Your task to perform on an android device: Search for pizza restaurants on Maps Image 0: 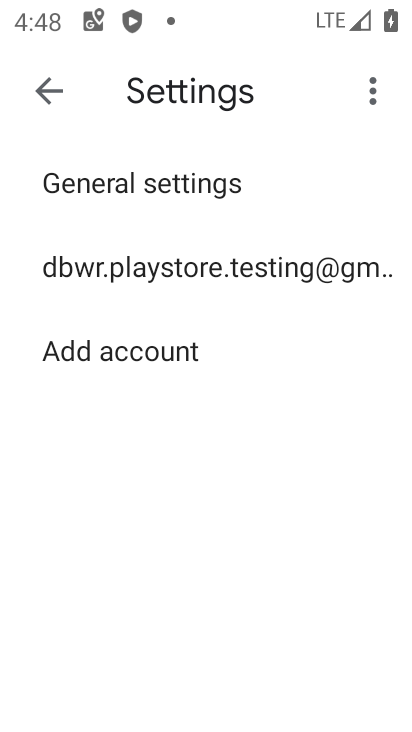
Step 0: press back button
Your task to perform on an android device: Search for pizza restaurants on Maps Image 1: 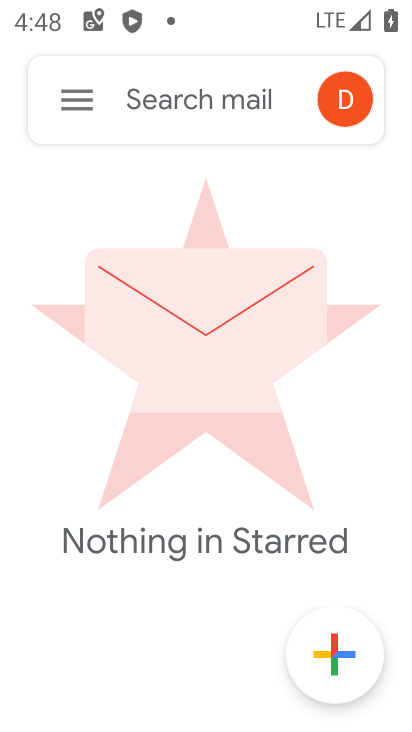
Step 1: press back button
Your task to perform on an android device: Search for pizza restaurants on Maps Image 2: 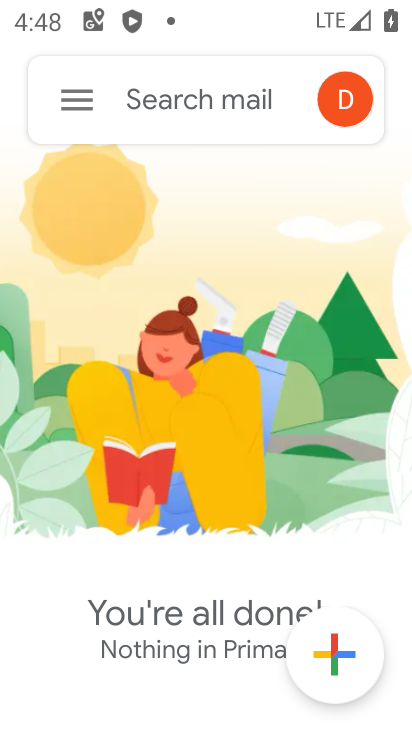
Step 2: press home button
Your task to perform on an android device: Search for pizza restaurants on Maps Image 3: 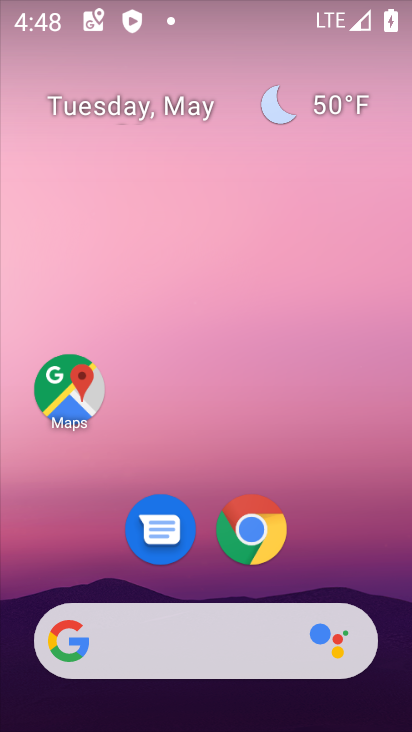
Step 3: drag from (341, 541) to (242, 1)
Your task to perform on an android device: Search for pizza restaurants on Maps Image 4: 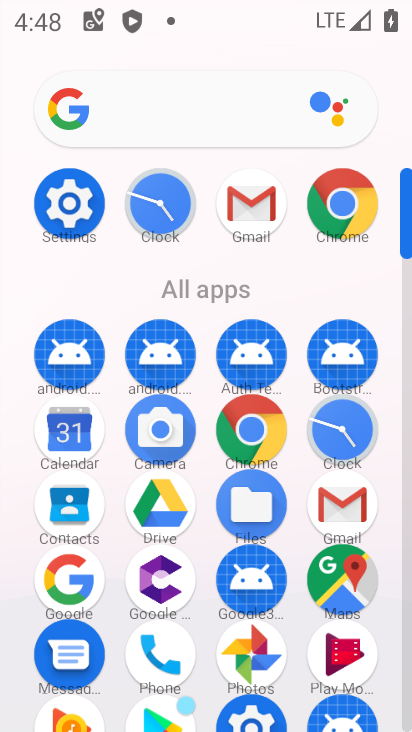
Step 4: click (338, 575)
Your task to perform on an android device: Search for pizza restaurants on Maps Image 5: 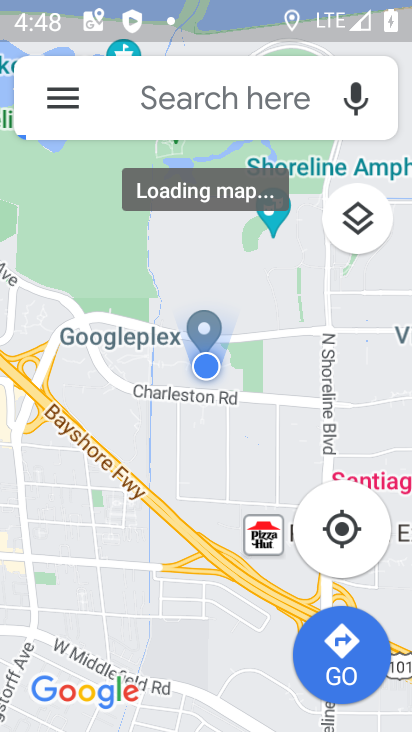
Step 5: click (140, 93)
Your task to perform on an android device: Search for pizza restaurants on Maps Image 6: 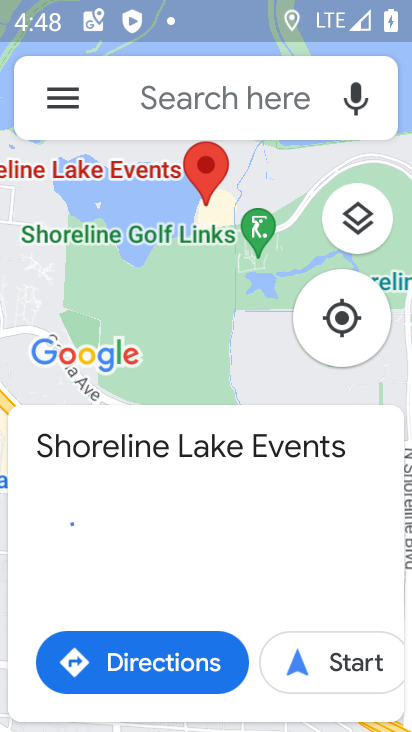
Step 6: click (129, 92)
Your task to perform on an android device: Search for pizza restaurants on Maps Image 7: 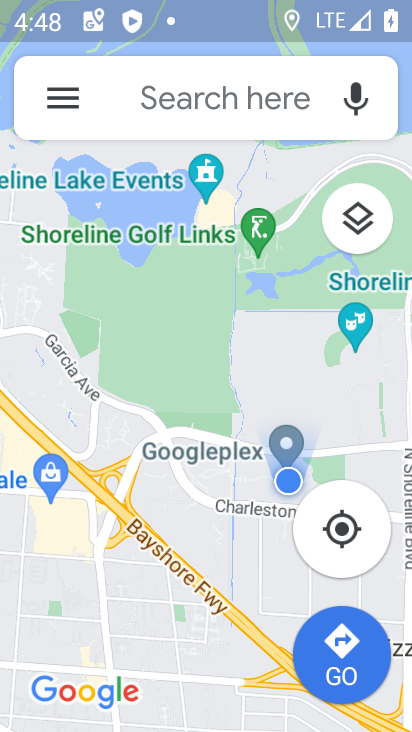
Step 7: click (129, 92)
Your task to perform on an android device: Search for pizza restaurants on Maps Image 8: 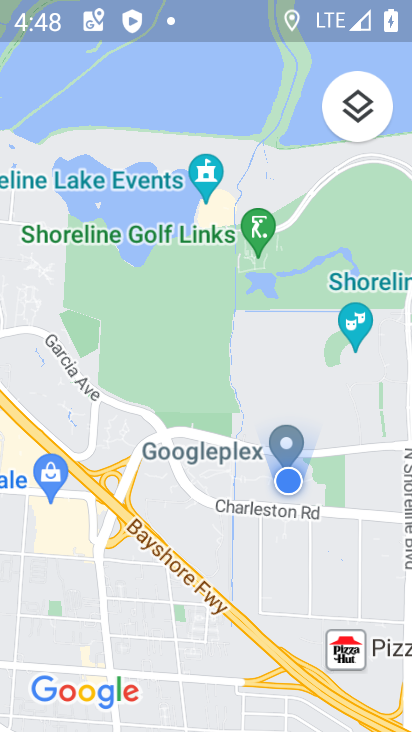
Step 8: click (138, 93)
Your task to perform on an android device: Search for pizza restaurants on Maps Image 9: 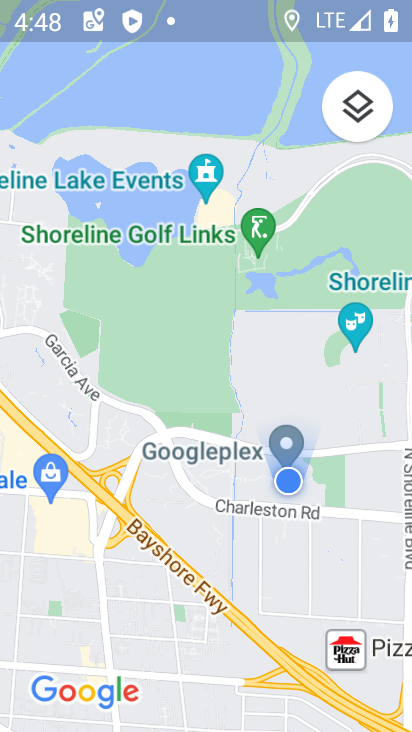
Step 9: click (177, 95)
Your task to perform on an android device: Search for pizza restaurants on Maps Image 10: 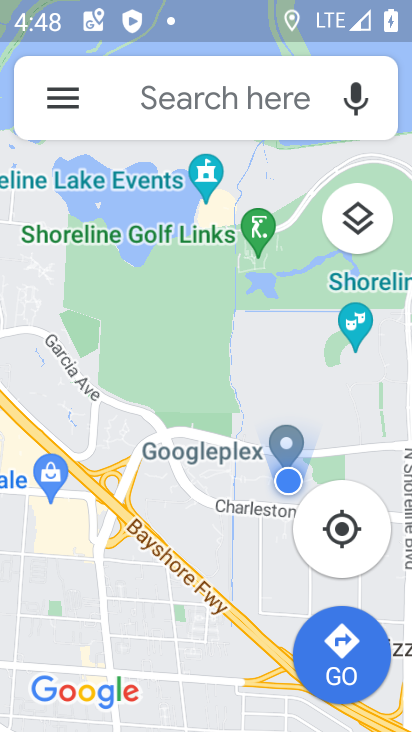
Step 10: click (202, 83)
Your task to perform on an android device: Search for pizza restaurants on Maps Image 11: 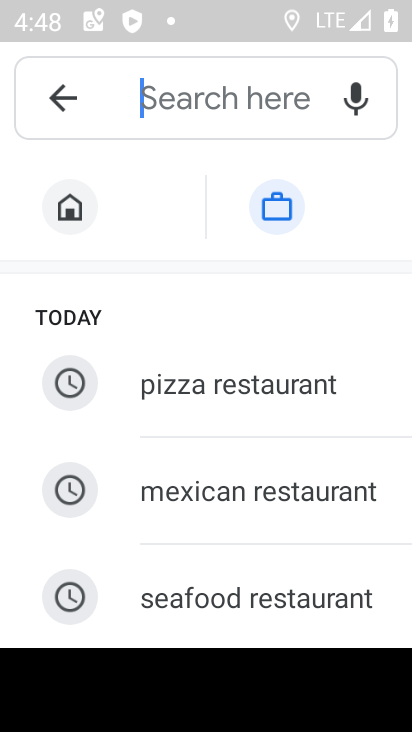
Step 11: drag from (239, 595) to (238, 321)
Your task to perform on an android device: Search for pizza restaurants on Maps Image 12: 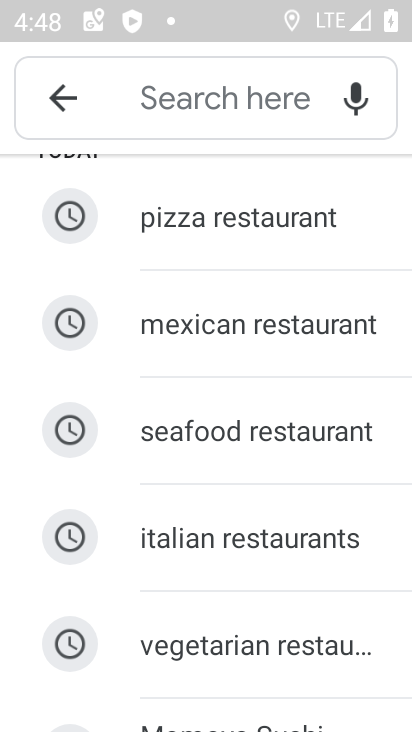
Step 12: click (220, 223)
Your task to perform on an android device: Search for pizza restaurants on Maps Image 13: 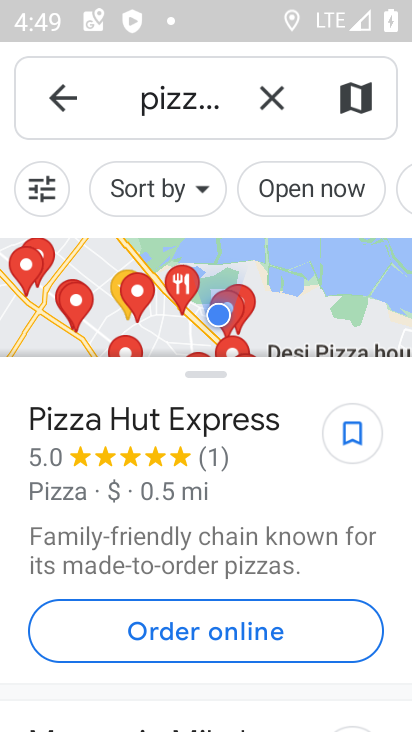
Step 13: task complete